Your task to perform on an android device: change alarm snooze length Image 0: 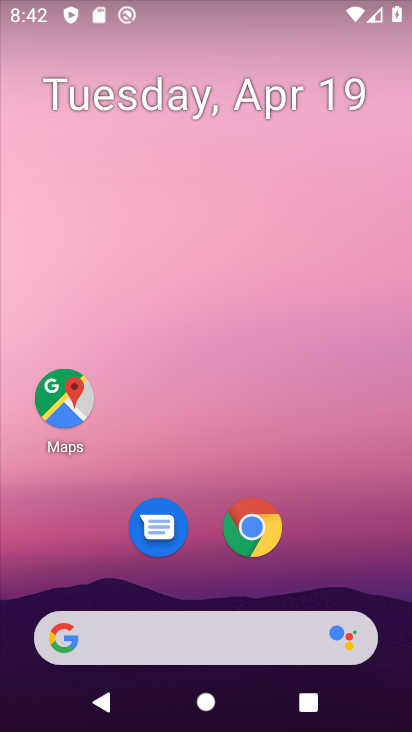
Step 0: drag from (378, 532) to (294, 102)
Your task to perform on an android device: change alarm snooze length Image 1: 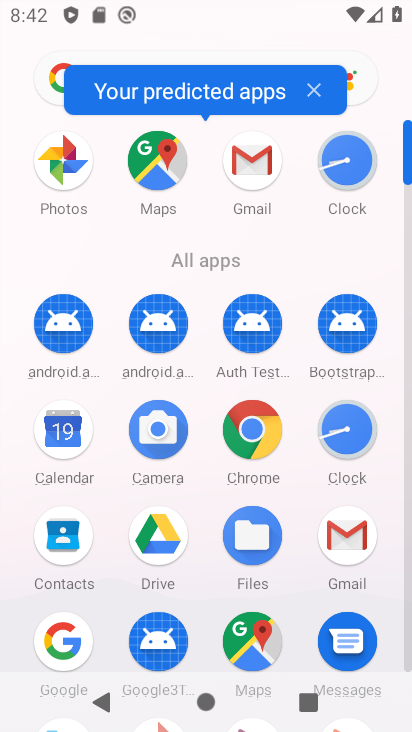
Step 1: click (351, 181)
Your task to perform on an android device: change alarm snooze length Image 2: 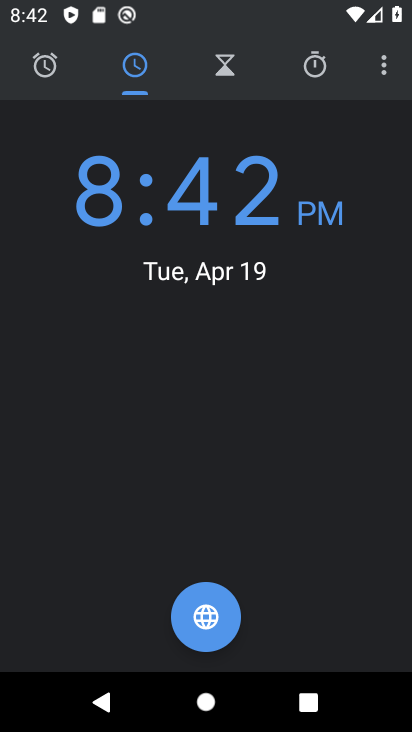
Step 2: click (378, 68)
Your task to perform on an android device: change alarm snooze length Image 3: 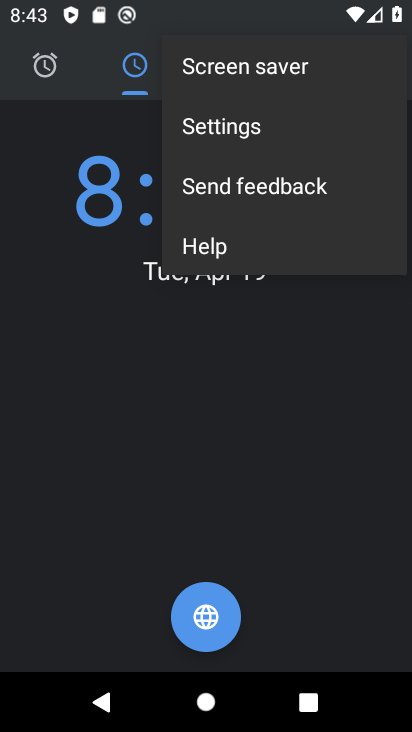
Step 3: click (338, 128)
Your task to perform on an android device: change alarm snooze length Image 4: 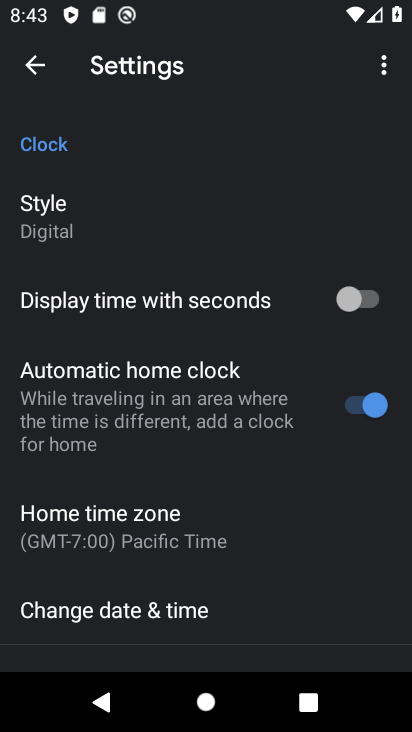
Step 4: drag from (293, 573) to (224, 234)
Your task to perform on an android device: change alarm snooze length Image 5: 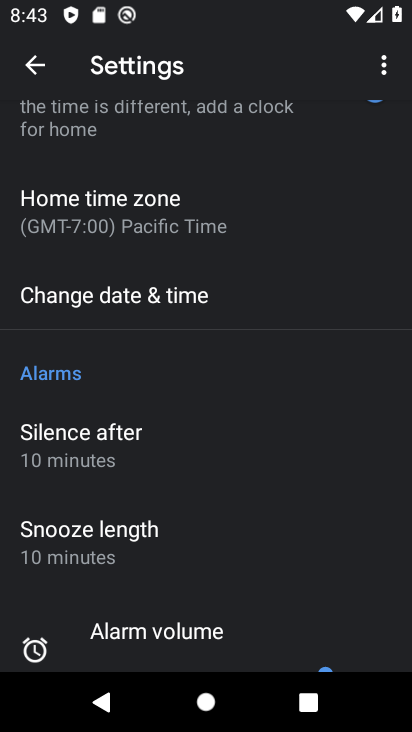
Step 5: click (254, 546)
Your task to perform on an android device: change alarm snooze length Image 6: 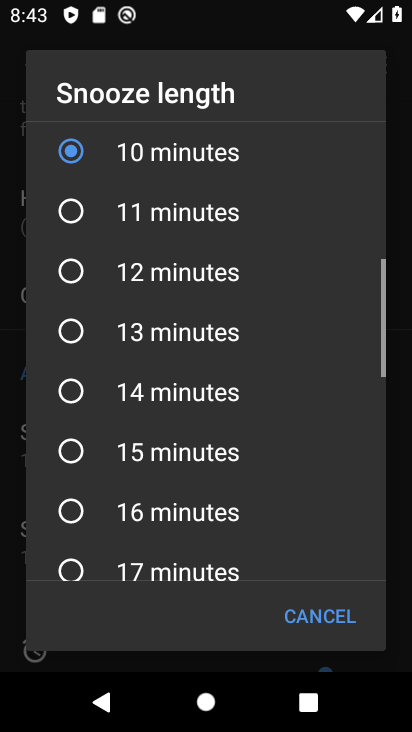
Step 6: click (233, 521)
Your task to perform on an android device: change alarm snooze length Image 7: 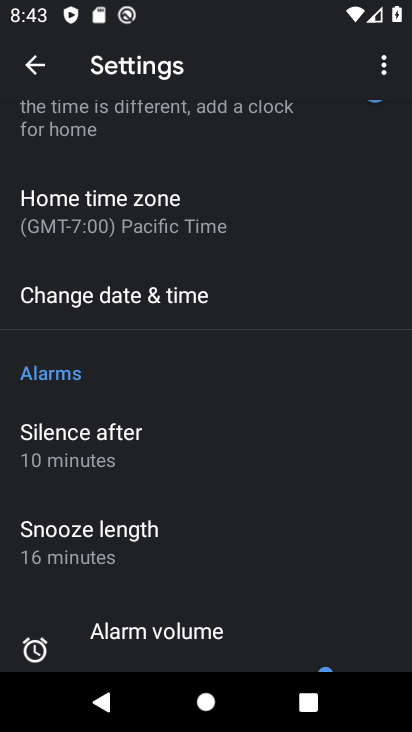
Step 7: task complete